Your task to perform on an android device: set the timer Image 0: 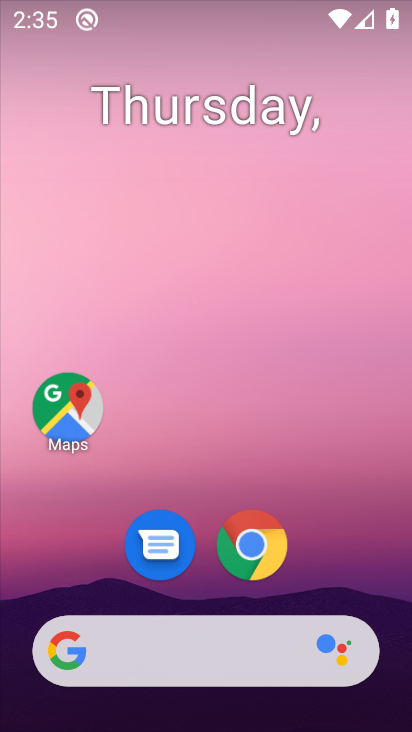
Step 0: drag from (185, 623) to (287, 71)
Your task to perform on an android device: set the timer Image 1: 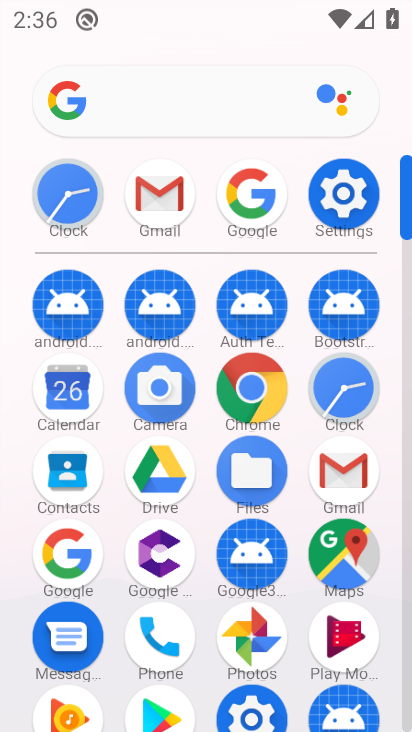
Step 1: click (339, 378)
Your task to perform on an android device: set the timer Image 2: 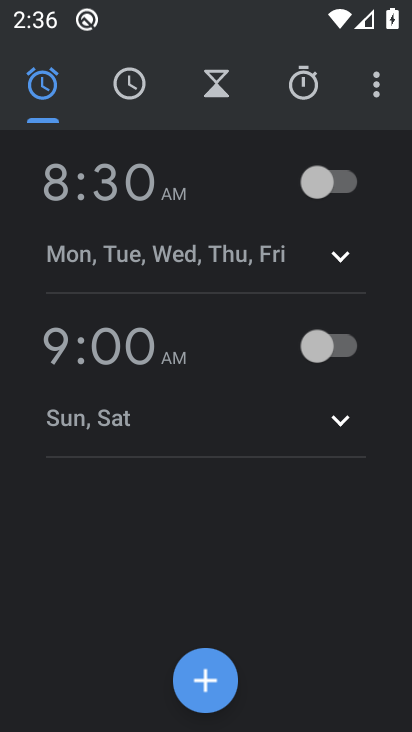
Step 2: click (213, 95)
Your task to perform on an android device: set the timer Image 3: 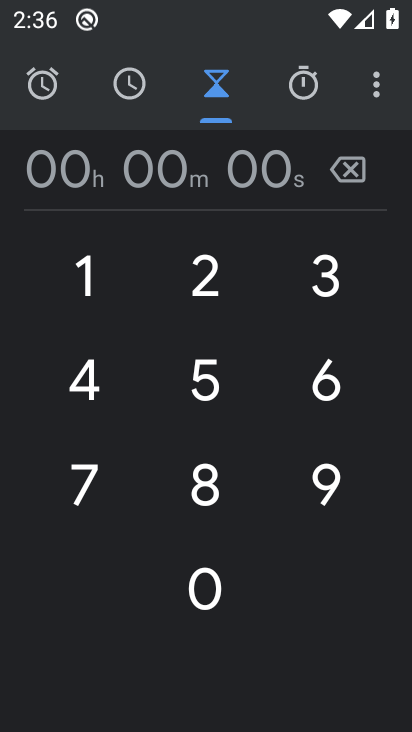
Step 3: click (215, 599)
Your task to perform on an android device: set the timer Image 4: 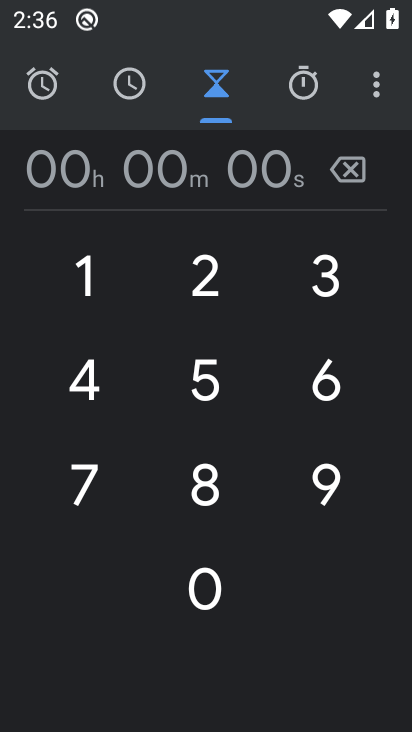
Step 4: click (216, 481)
Your task to perform on an android device: set the timer Image 5: 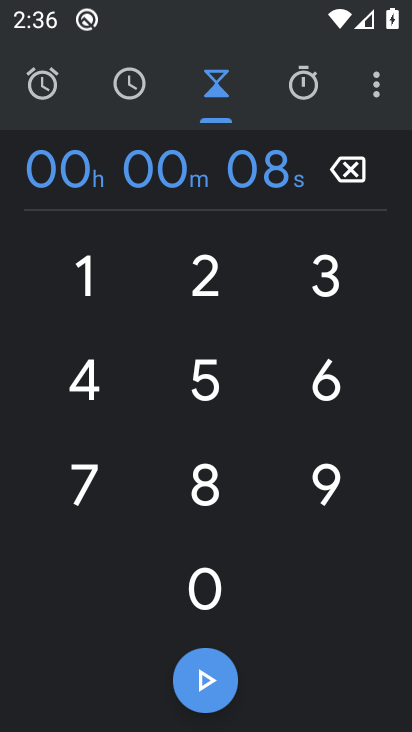
Step 5: click (208, 579)
Your task to perform on an android device: set the timer Image 6: 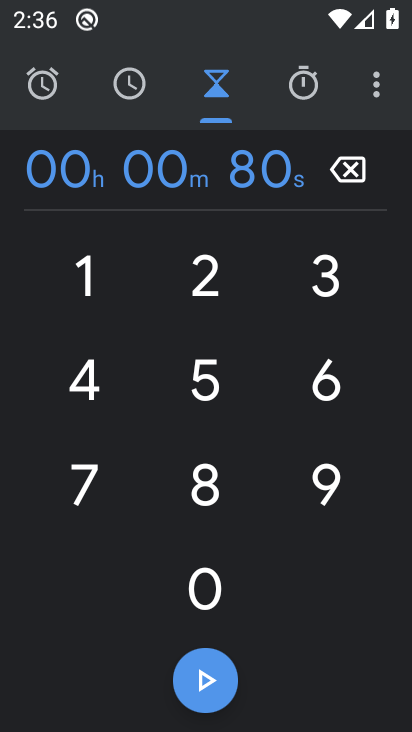
Step 6: click (208, 579)
Your task to perform on an android device: set the timer Image 7: 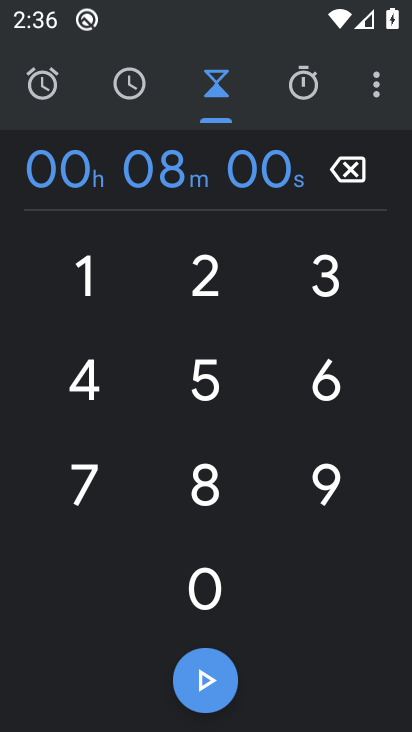
Step 7: task complete